Your task to perform on an android device: turn on location history Image 0: 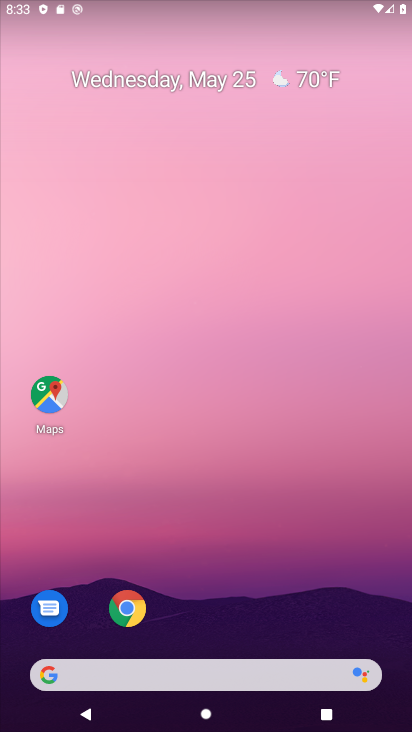
Step 0: drag from (291, 574) to (229, 71)
Your task to perform on an android device: turn on location history Image 1: 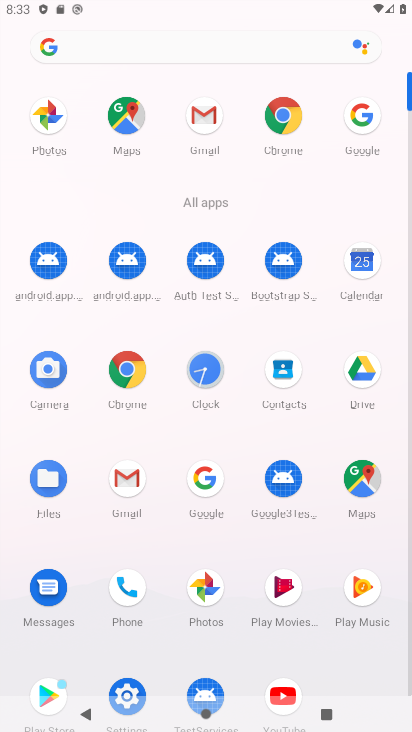
Step 1: click (125, 680)
Your task to perform on an android device: turn on location history Image 2: 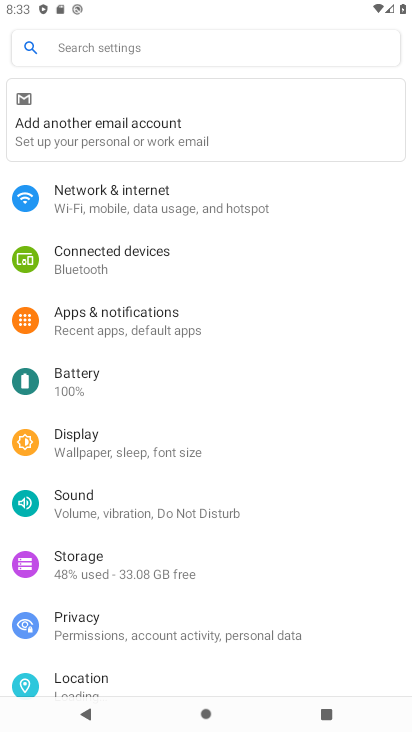
Step 2: click (182, 678)
Your task to perform on an android device: turn on location history Image 3: 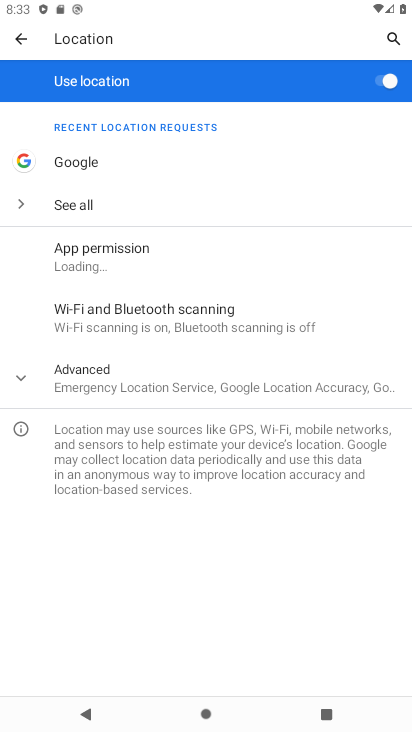
Step 3: click (141, 381)
Your task to perform on an android device: turn on location history Image 4: 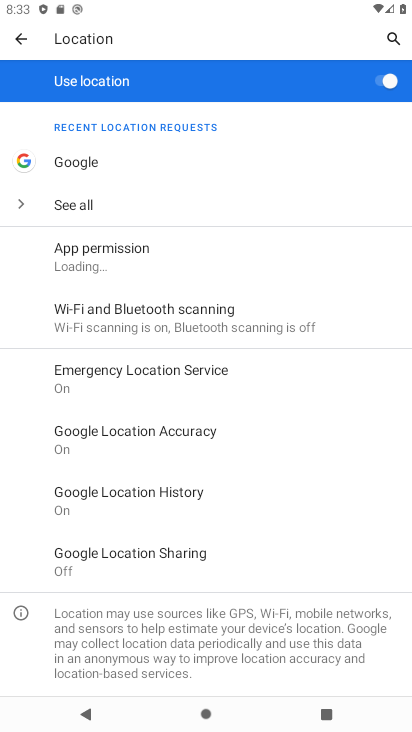
Step 4: click (199, 482)
Your task to perform on an android device: turn on location history Image 5: 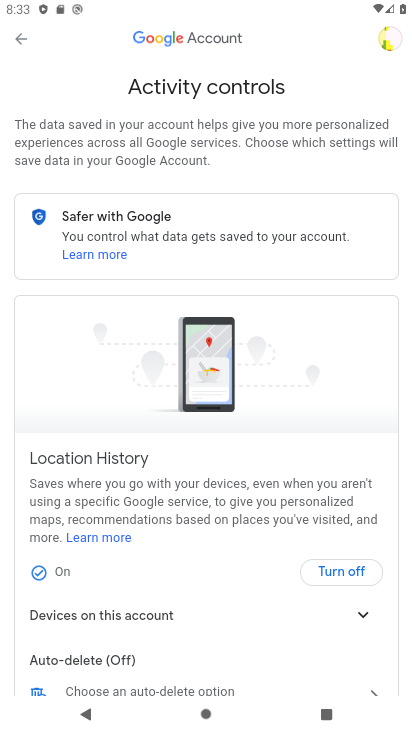
Step 5: task complete